Your task to perform on an android device: turn pop-ups on in chrome Image 0: 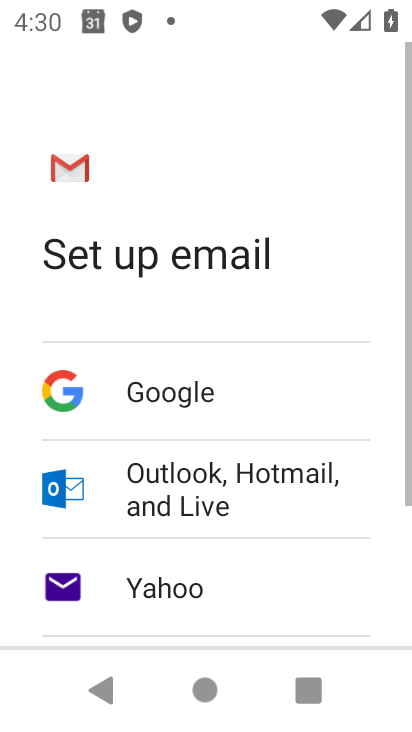
Step 0: press home button
Your task to perform on an android device: turn pop-ups on in chrome Image 1: 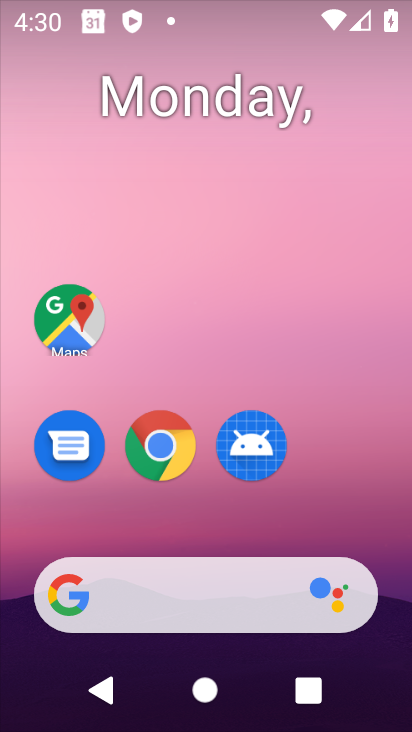
Step 1: drag from (345, 508) to (337, 27)
Your task to perform on an android device: turn pop-ups on in chrome Image 2: 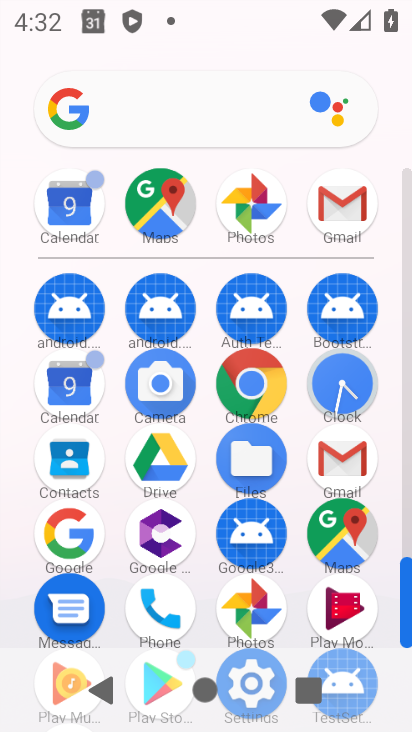
Step 2: click (267, 375)
Your task to perform on an android device: turn pop-ups on in chrome Image 3: 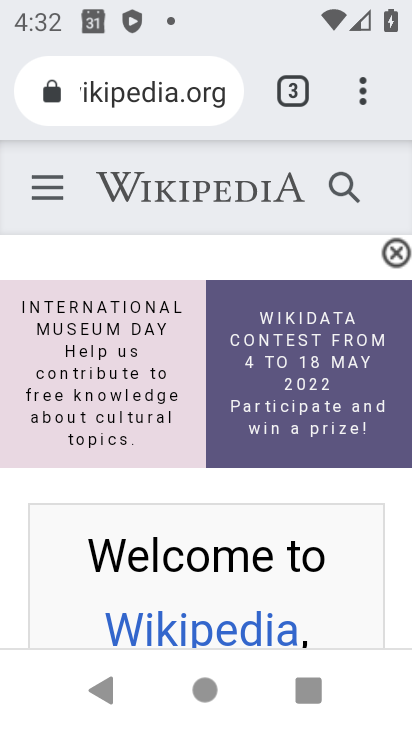
Step 3: drag from (354, 97) to (121, 483)
Your task to perform on an android device: turn pop-ups on in chrome Image 4: 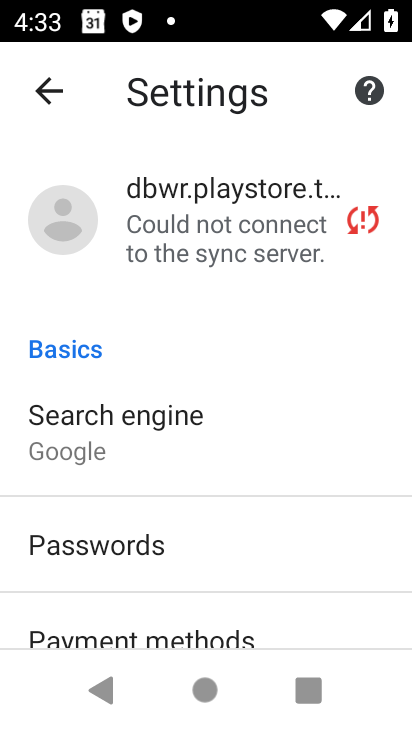
Step 4: drag from (150, 572) to (185, 241)
Your task to perform on an android device: turn pop-ups on in chrome Image 5: 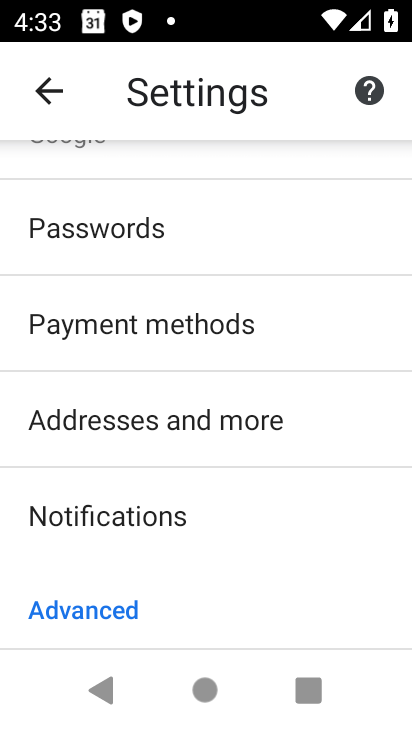
Step 5: drag from (216, 503) to (215, 158)
Your task to perform on an android device: turn pop-ups on in chrome Image 6: 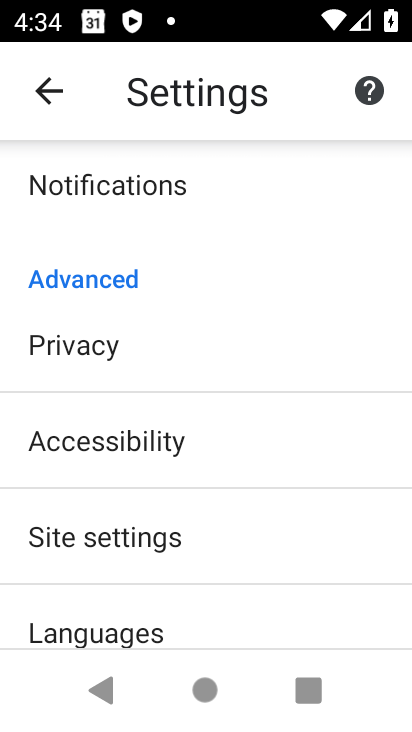
Step 6: drag from (187, 590) to (199, 336)
Your task to perform on an android device: turn pop-ups on in chrome Image 7: 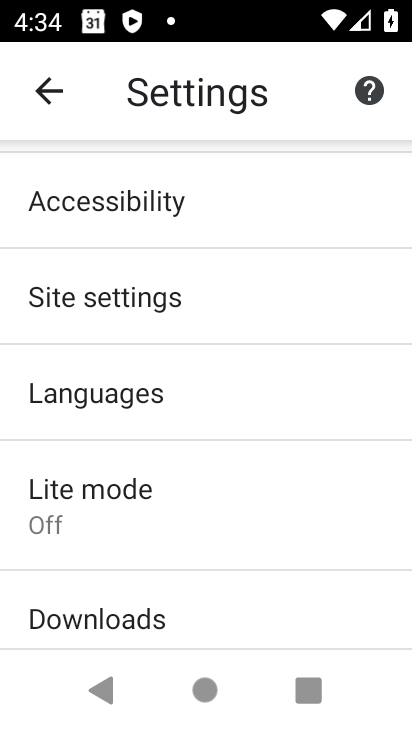
Step 7: drag from (148, 579) to (162, 496)
Your task to perform on an android device: turn pop-ups on in chrome Image 8: 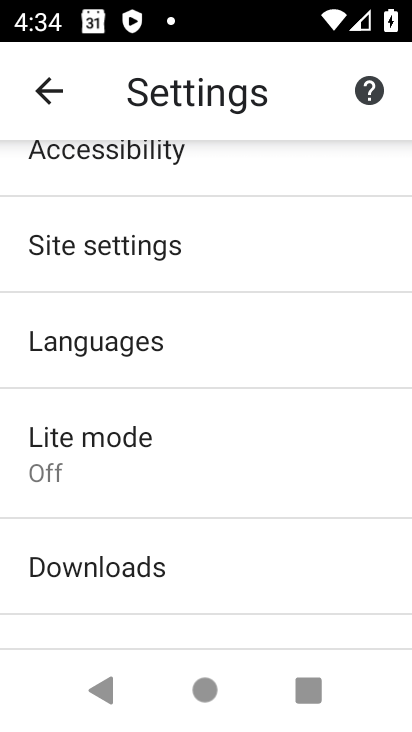
Step 8: click (148, 256)
Your task to perform on an android device: turn pop-ups on in chrome Image 9: 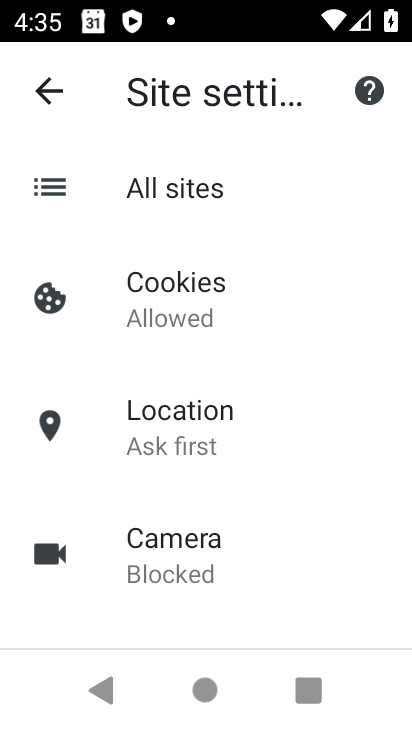
Step 9: drag from (233, 524) to (237, 115)
Your task to perform on an android device: turn pop-ups on in chrome Image 10: 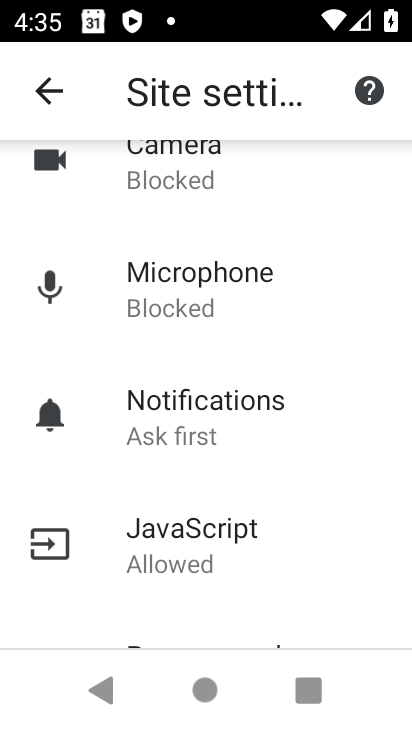
Step 10: drag from (190, 588) to (194, 308)
Your task to perform on an android device: turn pop-ups on in chrome Image 11: 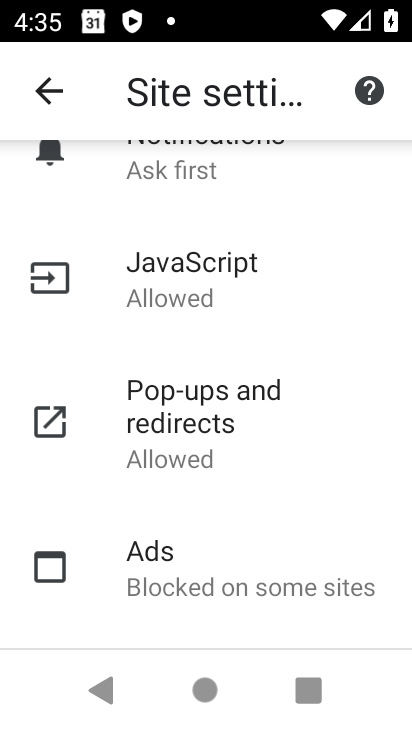
Step 11: drag from (200, 537) to (194, 349)
Your task to perform on an android device: turn pop-ups on in chrome Image 12: 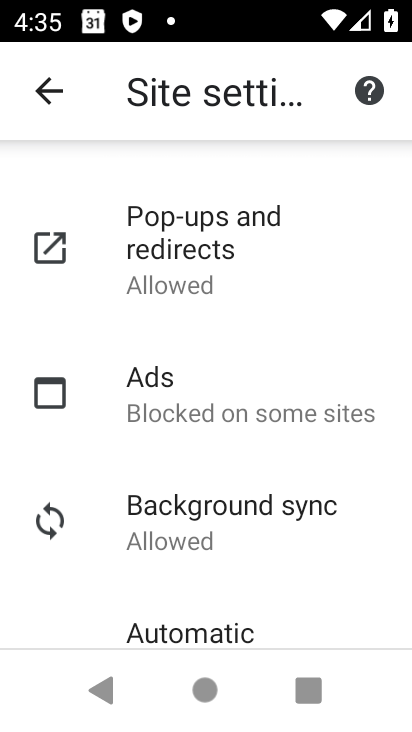
Step 12: drag from (205, 589) to (201, 355)
Your task to perform on an android device: turn pop-ups on in chrome Image 13: 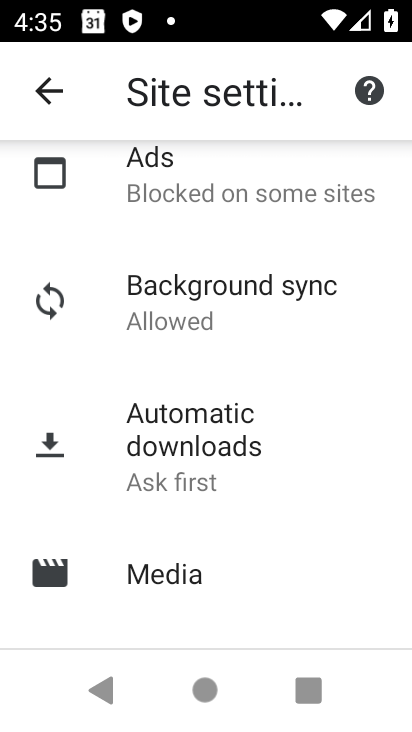
Step 13: drag from (223, 565) to (219, 328)
Your task to perform on an android device: turn pop-ups on in chrome Image 14: 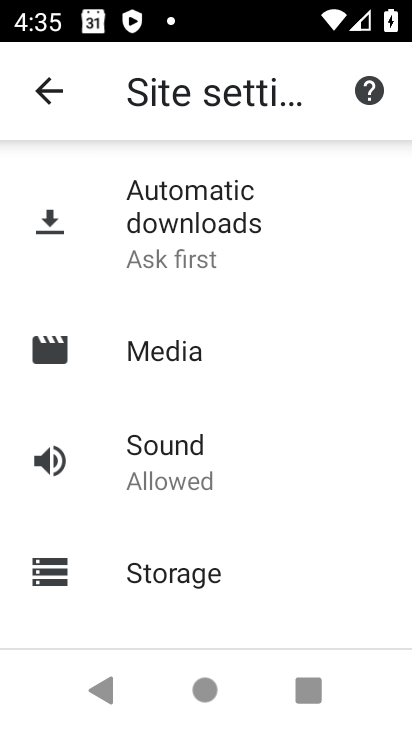
Step 14: drag from (244, 543) to (243, 277)
Your task to perform on an android device: turn pop-ups on in chrome Image 15: 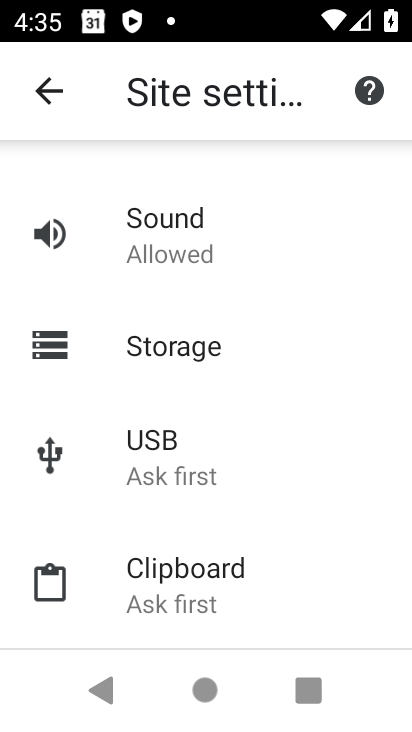
Step 15: drag from (264, 588) to (251, 392)
Your task to perform on an android device: turn pop-ups on in chrome Image 16: 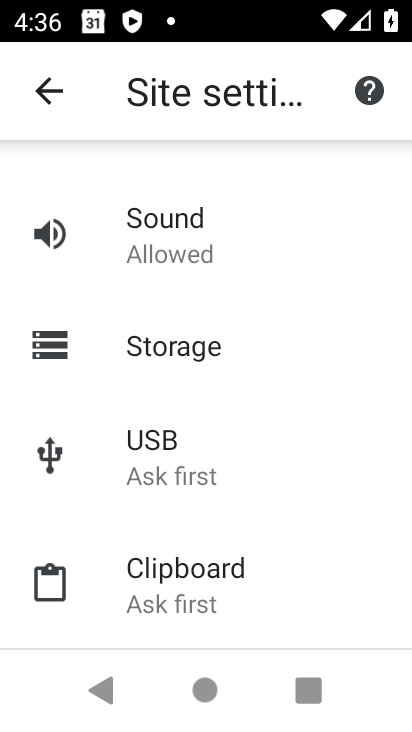
Step 16: drag from (253, 567) to (237, 369)
Your task to perform on an android device: turn pop-ups on in chrome Image 17: 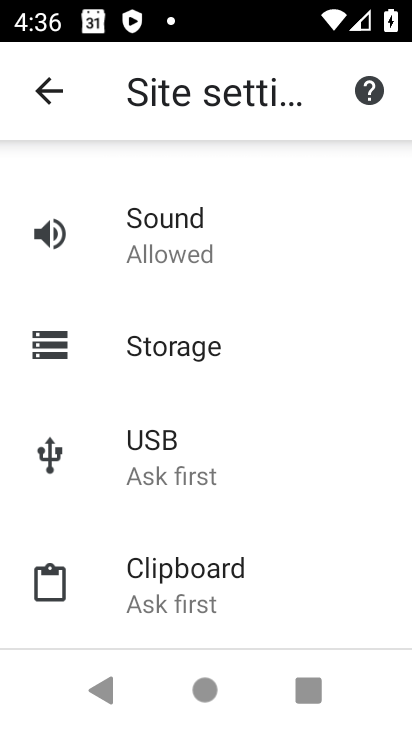
Step 17: drag from (244, 538) to (250, 328)
Your task to perform on an android device: turn pop-ups on in chrome Image 18: 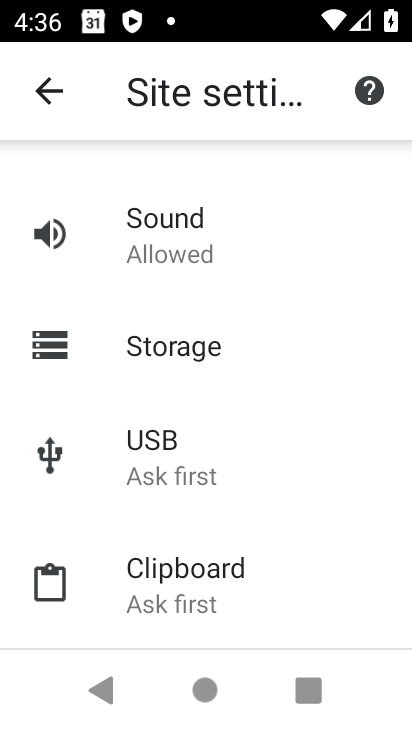
Step 18: drag from (252, 298) to (254, 711)
Your task to perform on an android device: turn pop-ups on in chrome Image 19: 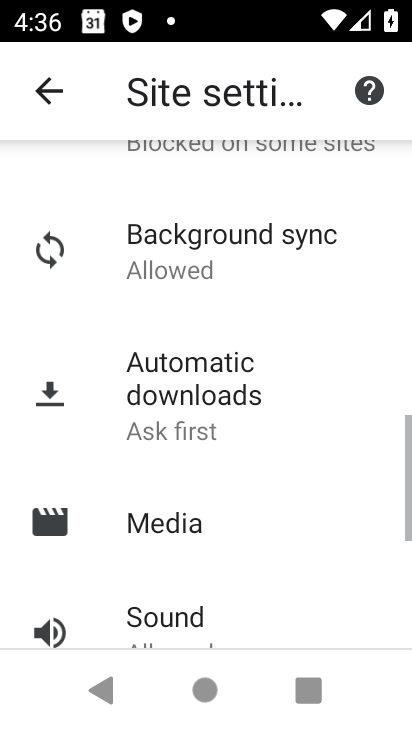
Step 19: drag from (238, 332) to (252, 727)
Your task to perform on an android device: turn pop-ups on in chrome Image 20: 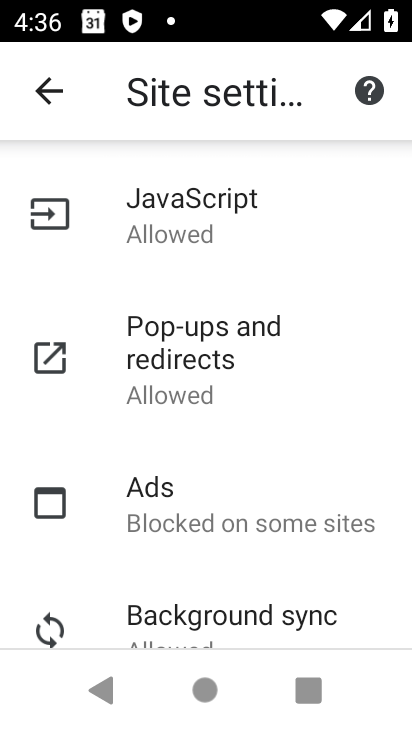
Step 20: click (245, 345)
Your task to perform on an android device: turn pop-ups on in chrome Image 21: 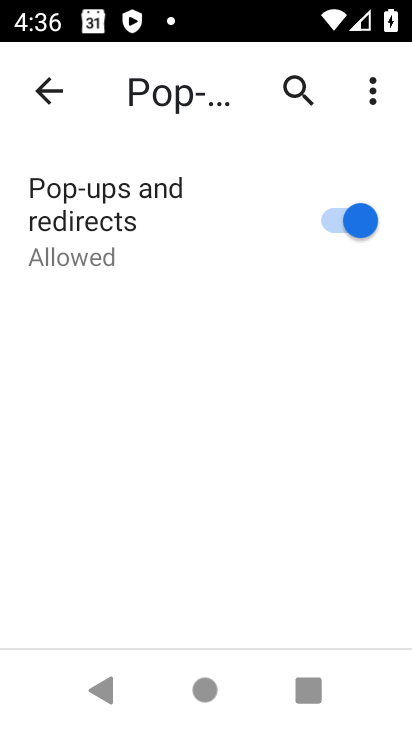
Step 21: task complete